Your task to perform on an android device: toggle location history Image 0: 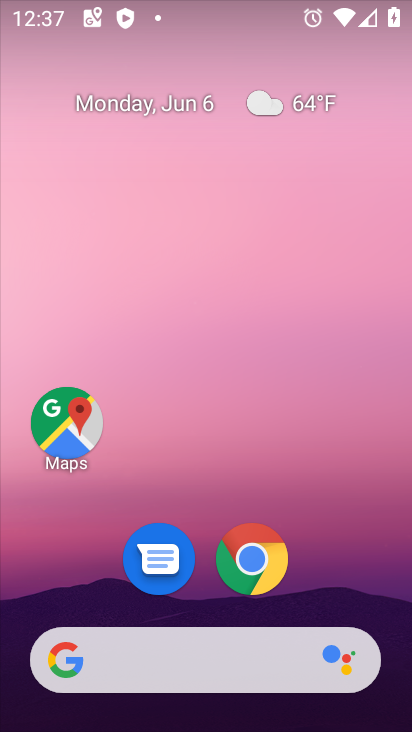
Step 0: drag from (232, 693) to (343, 223)
Your task to perform on an android device: toggle location history Image 1: 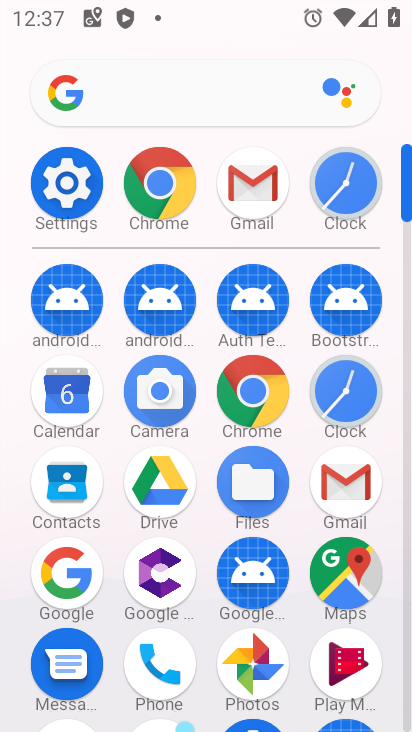
Step 1: click (47, 157)
Your task to perform on an android device: toggle location history Image 2: 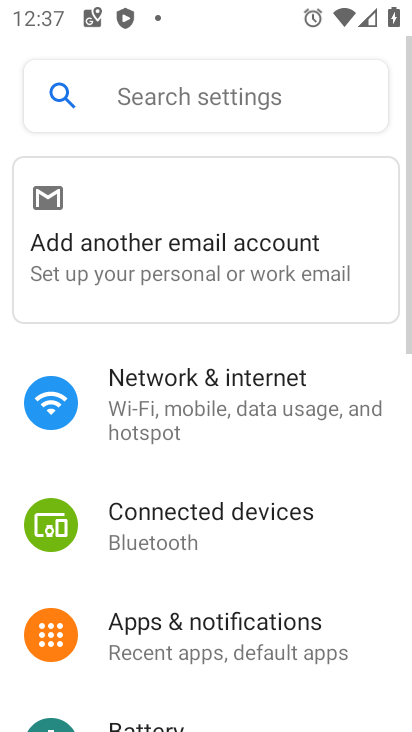
Step 2: click (218, 102)
Your task to perform on an android device: toggle location history Image 3: 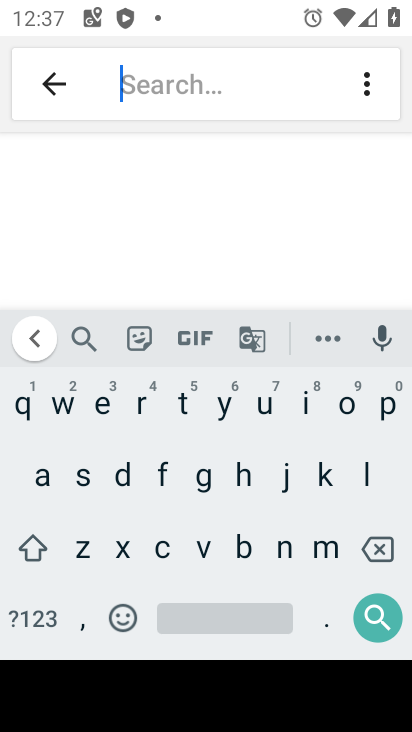
Step 3: click (368, 471)
Your task to perform on an android device: toggle location history Image 4: 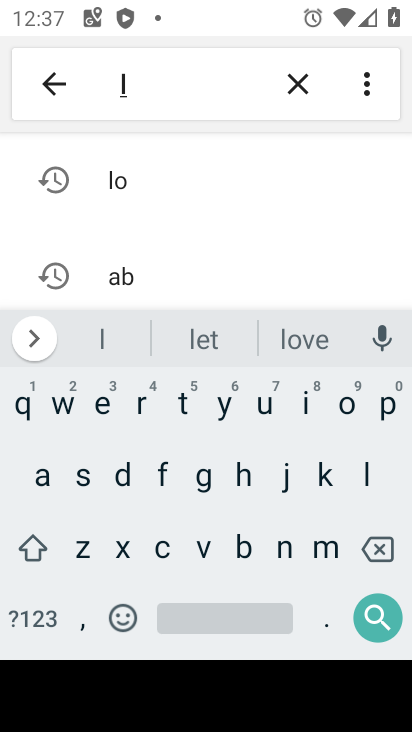
Step 4: click (346, 408)
Your task to perform on an android device: toggle location history Image 5: 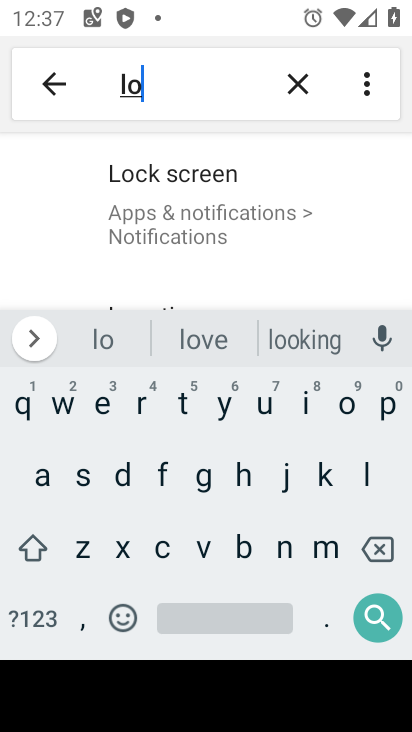
Step 5: click (146, 307)
Your task to perform on an android device: toggle location history Image 6: 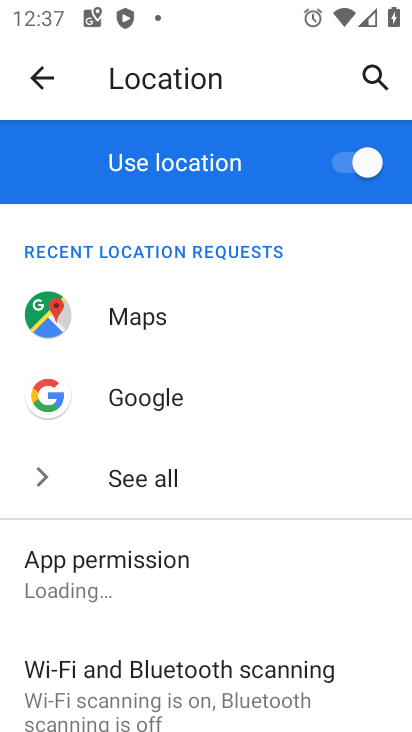
Step 6: drag from (297, 626) to (376, 297)
Your task to perform on an android device: toggle location history Image 7: 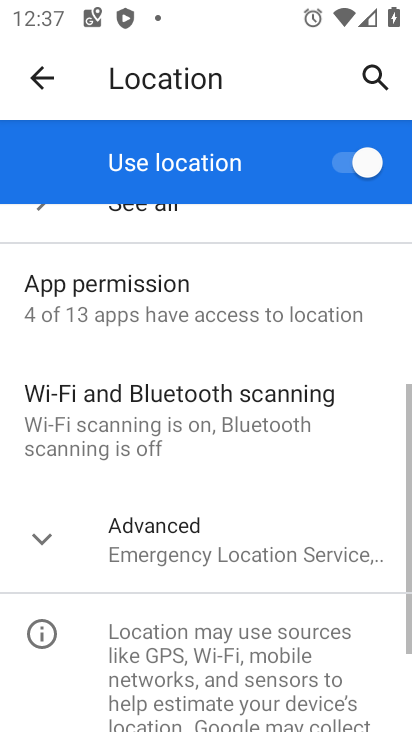
Step 7: click (70, 568)
Your task to perform on an android device: toggle location history Image 8: 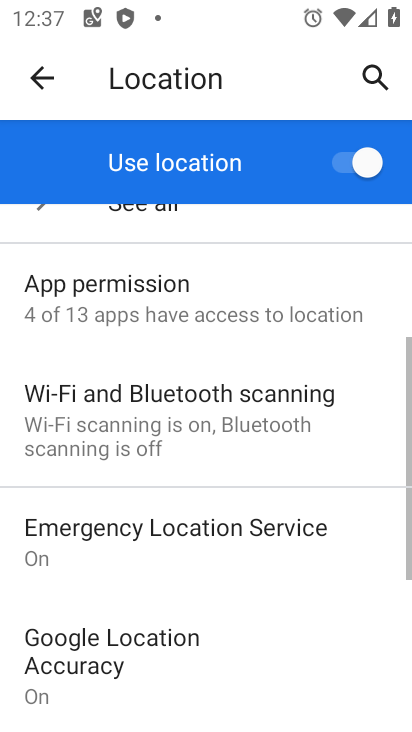
Step 8: drag from (106, 682) to (188, 442)
Your task to perform on an android device: toggle location history Image 9: 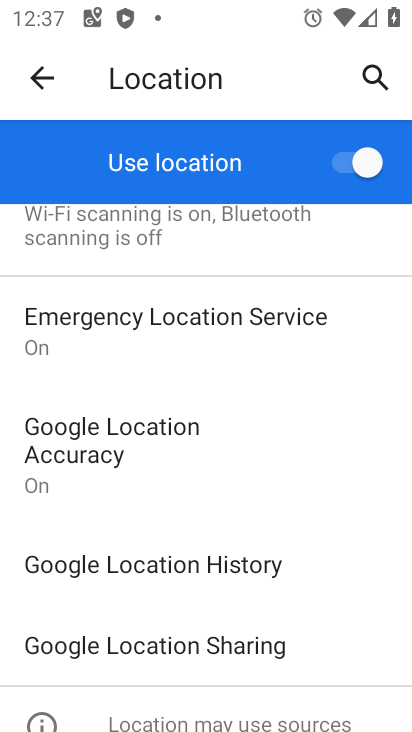
Step 9: click (149, 575)
Your task to perform on an android device: toggle location history Image 10: 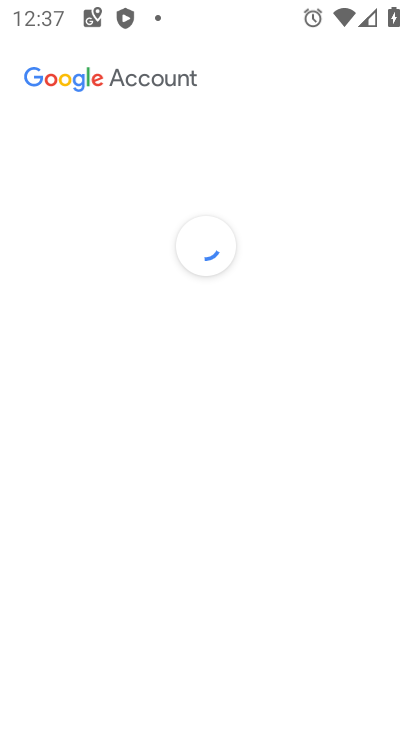
Step 10: task complete